Your task to perform on an android device: refresh tabs in the chrome app Image 0: 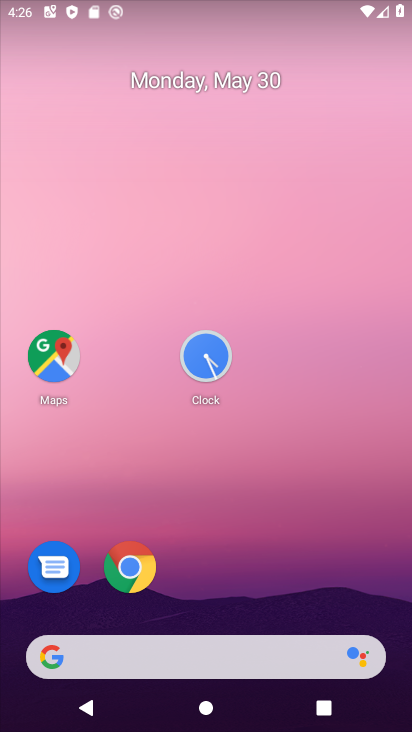
Step 0: drag from (244, 658) to (232, 346)
Your task to perform on an android device: refresh tabs in the chrome app Image 1: 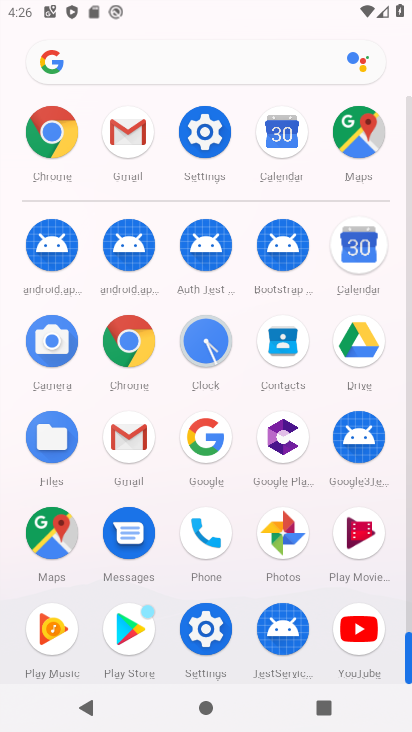
Step 1: click (46, 138)
Your task to perform on an android device: refresh tabs in the chrome app Image 2: 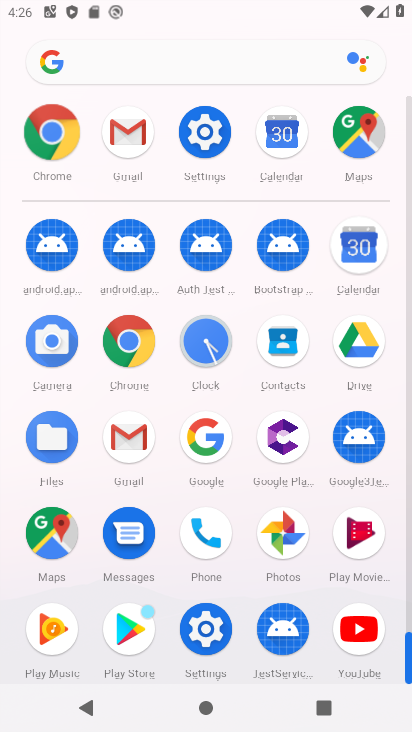
Step 2: click (51, 132)
Your task to perform on an android device: refresh tabs in the chrome app Image 3: 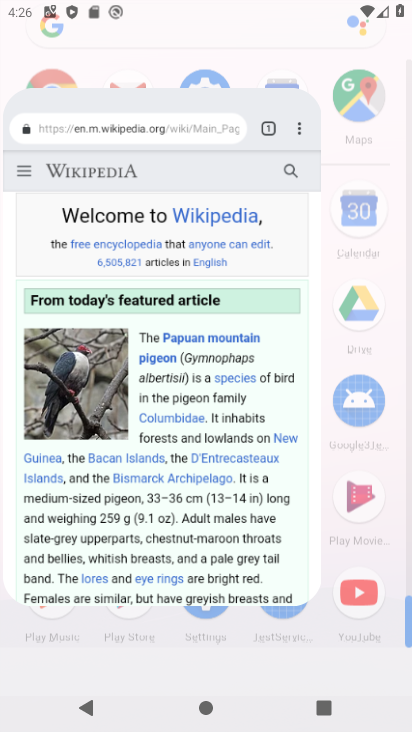
Step 3: click (51, 132)
Your task to perform on an android device: refresh tabs in the chrome app Image 4: 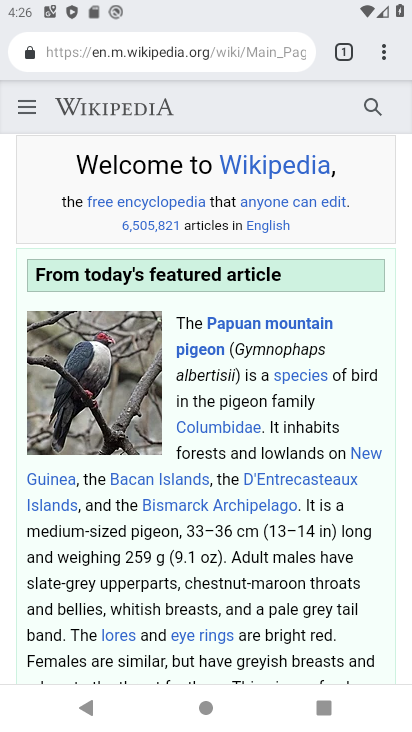
Step 4: press back button
Your task to perform on an android device: refresh tabs in the chrome app Image 5: 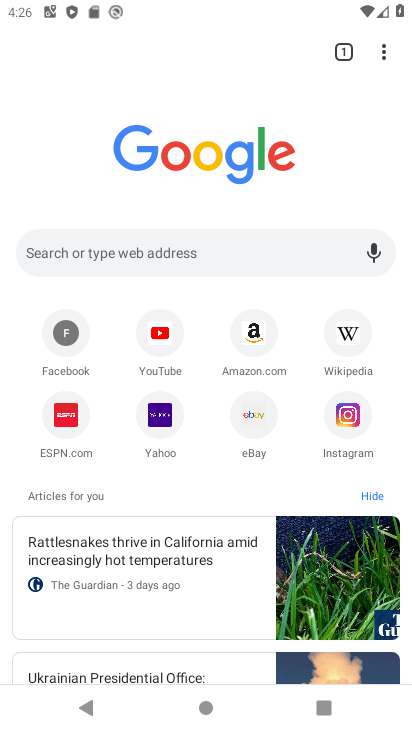
Step 5: click (384, 61)
Your task to perform on an android device: refresh tabs in the chrome app Image 6: 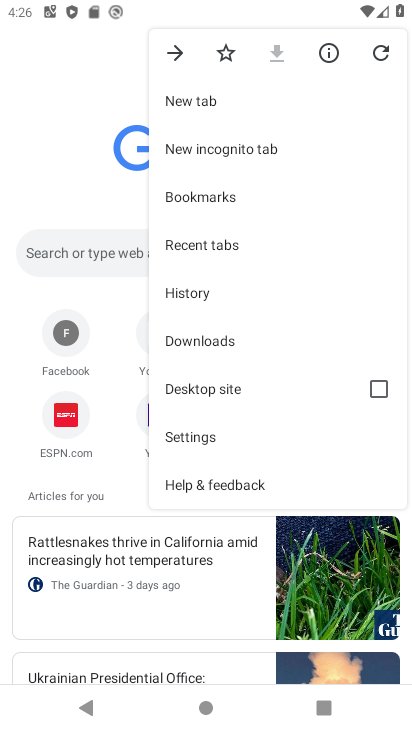
Step 6: click (192, 240)
Your task to perform on an android device: refresh tabs in the chrome app Image 7: 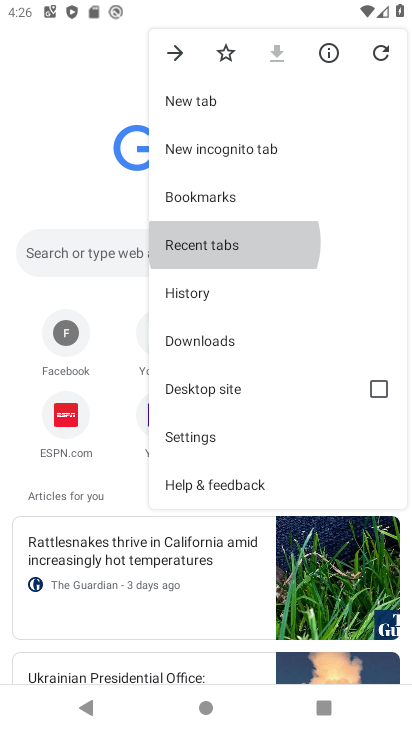
Step 7: click (191, 241)
Your task to perform on an android device: refresh tabs in the chrome app Image 8: 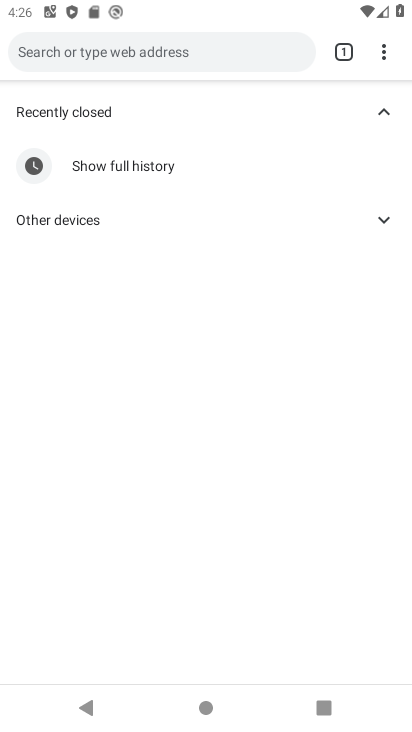
Step 8: click (192, 242)
Your task to perform on an android device: refresh tabs in the chrome app Image 9: 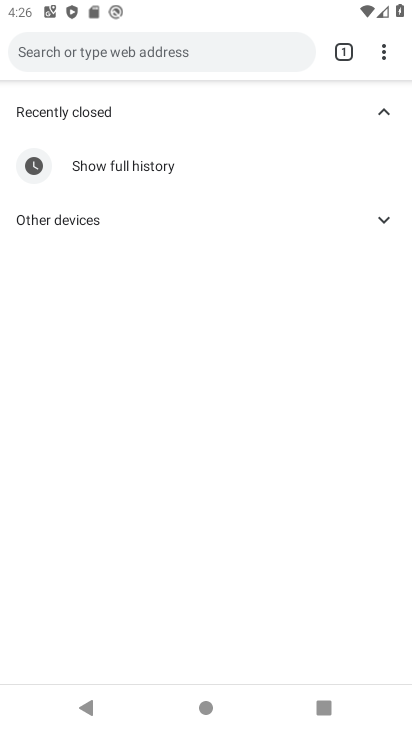
Step 9: click (192, 242)
Your task to perform on an android device: refresh tabs in the chrome app Image 10: 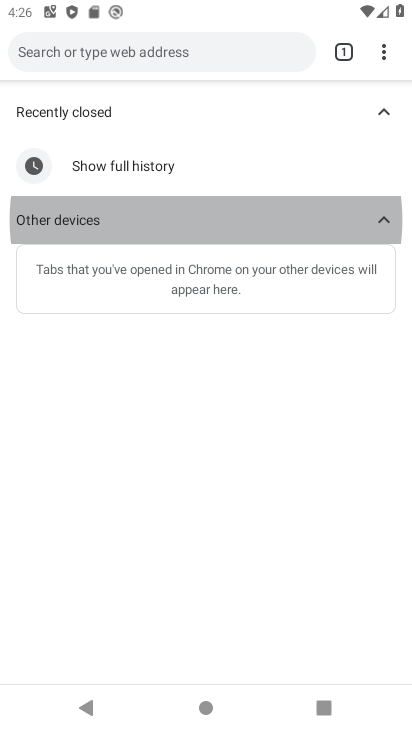
Step 10: click (192, 242)
Your task to perform on an android device: refresh tabs in the chrome app Image 11: 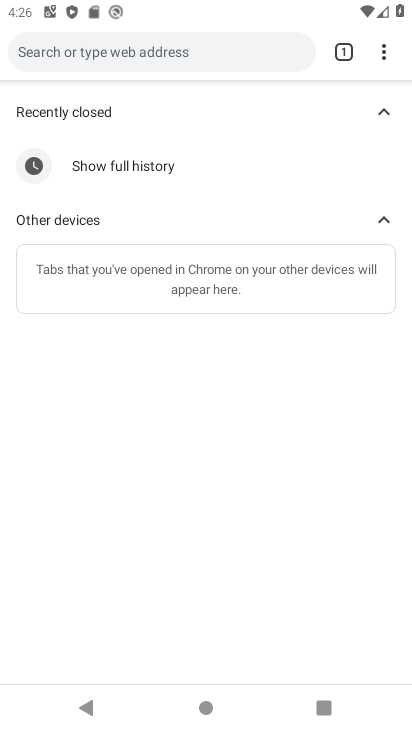
Step 11: click (386, 54)
Your task to perform on an android device: refresh tabs in the chrome app Image 12: 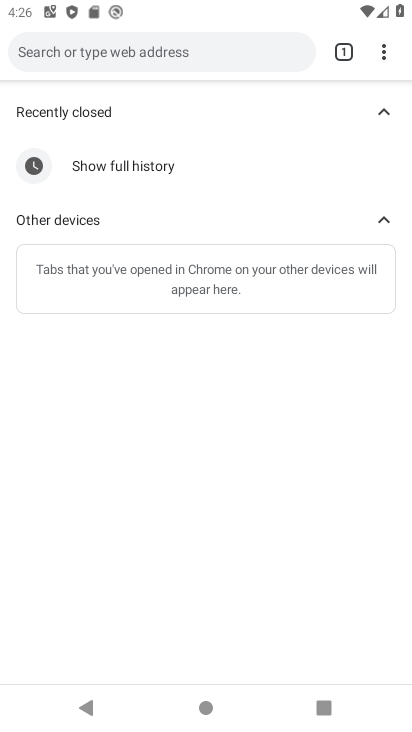
Step 12: click (384, 54)
Your task to perform on an android device: refresh tabs in the chrome app Image 13: 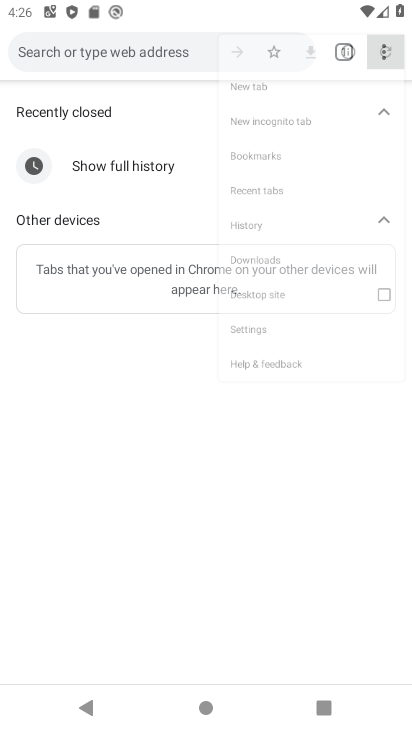
Step 13: click (383, 56)
Your task to perform on an android device: refresh tabs in the chrome app Image 14: 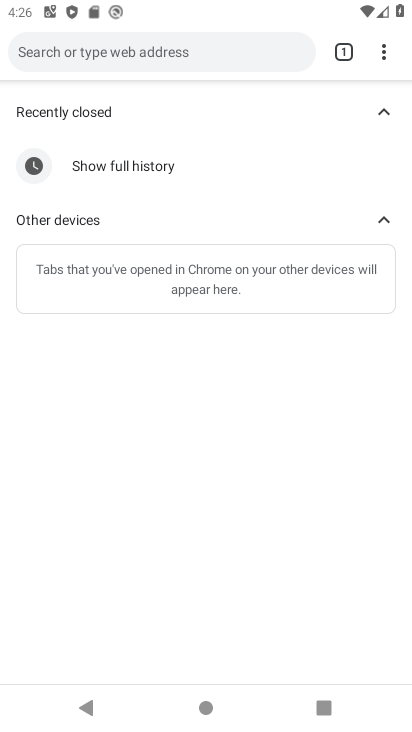
Step 14: click (385, 57)
Your task to perform on an android device: refresh tabs in the chrome app Image 15: 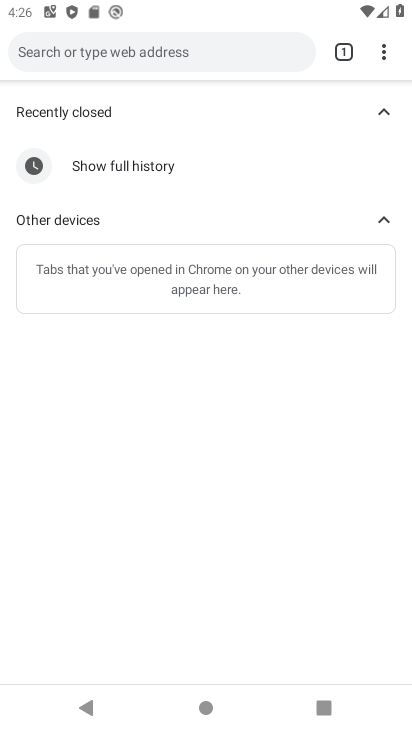
Step 15: task complete